Your task to perform on an android device: all mails in gmail Image 0: 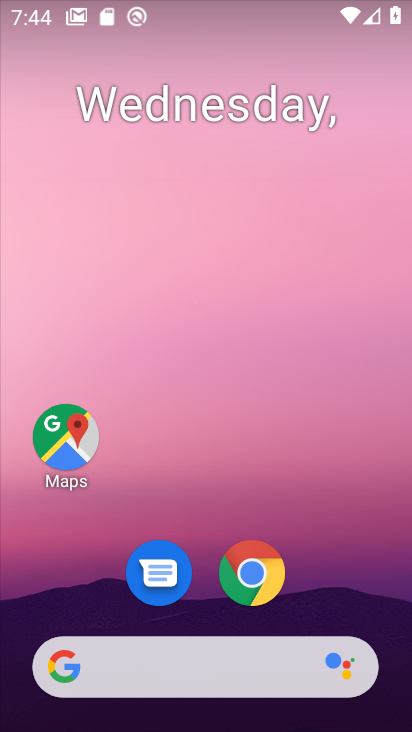
Step 0: drag from (301, 621) to (298, 24)
Your task to perform on an android device: all mails in gmail Image 1: 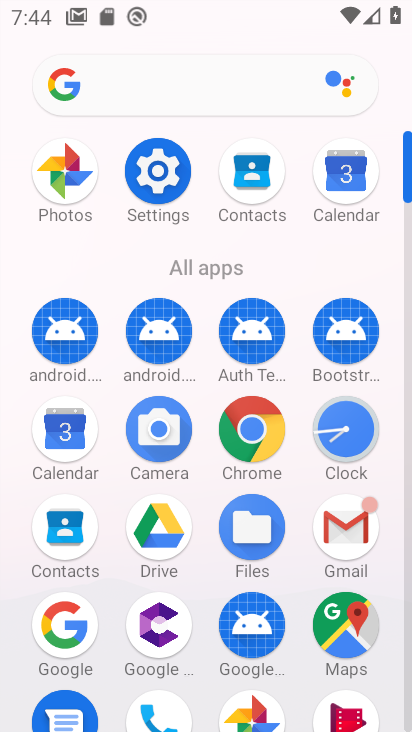
Step 1: click (351, 535)
Your task to perform on an android device: all mails in gmail Image 2: 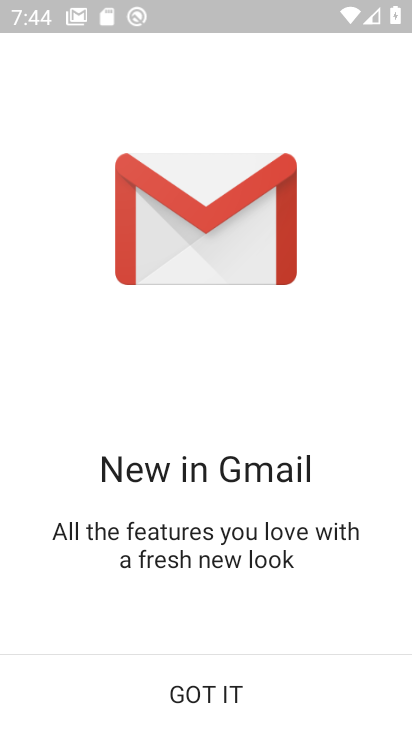
Step 2: click (190, 692)
Your task to perform on an android device: all mails in gmail Image 3: 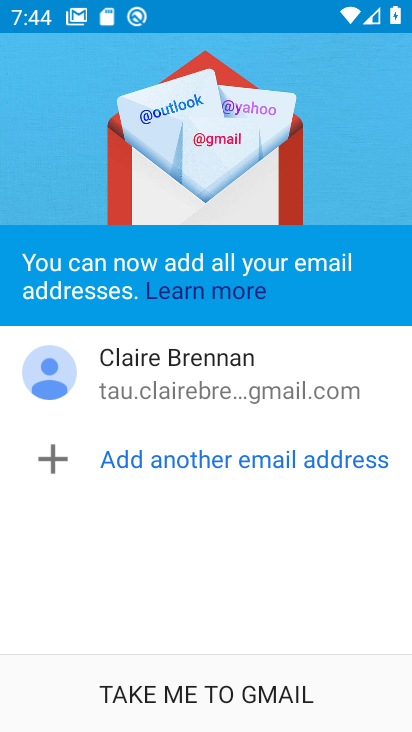
Step 3: click (190, 692)
Your task to perform on an android device: all mails in gmail Image 4: 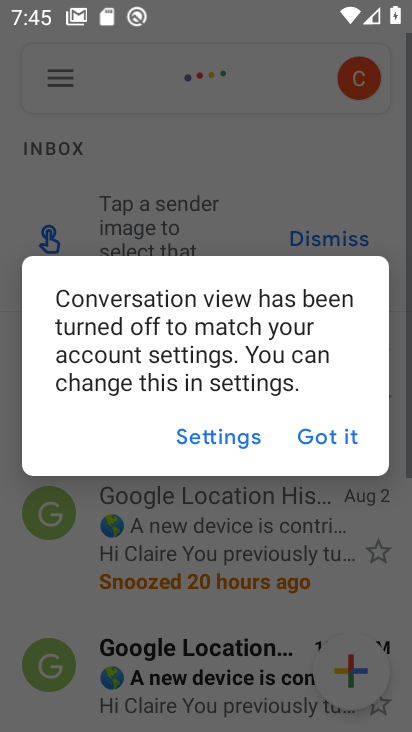
Step 4: click (331, 443)
Your task to perform on an android device: all mails in gmail Image 5: 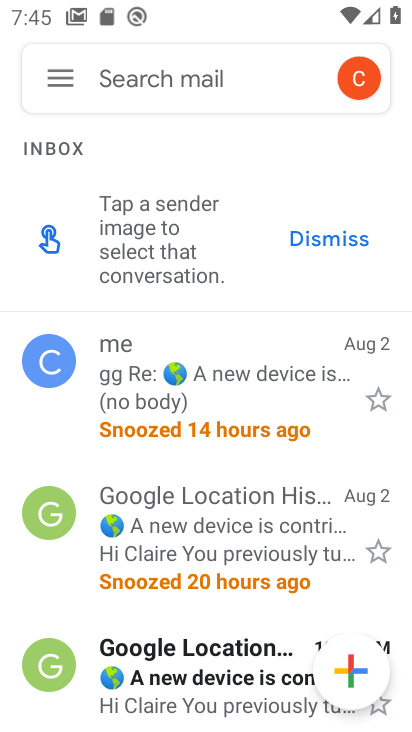
Step 5: click (65, 79)
Your task to perform on an android device: all mails in gmail Image 6: 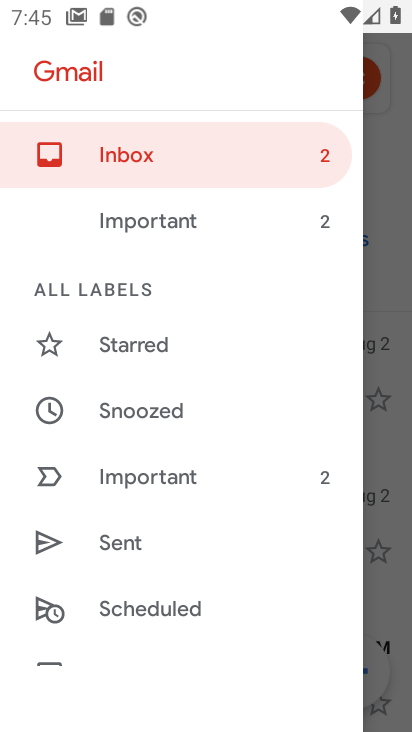
Step 6: drag from (203, 536) to (190, 259)
Your task to perform on an android device: all mails in gmail Image 7: 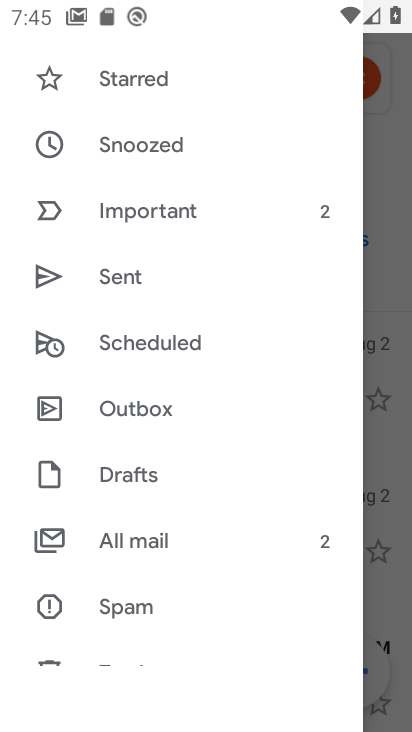
Step 7: click (124, 544)
Your task to perform on an android device: all mails in gmail Image 8: 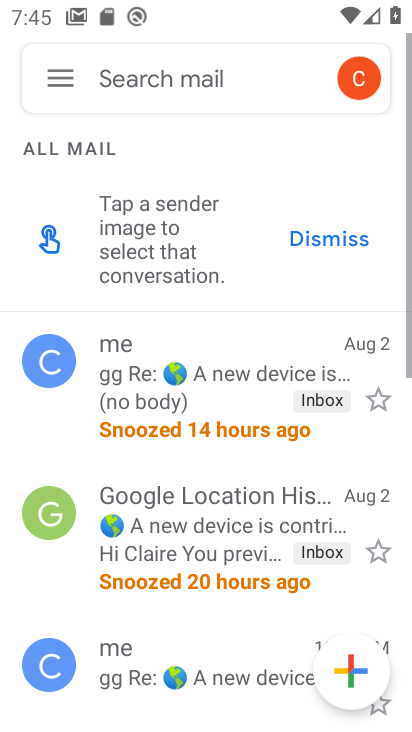
Step 8: task complete